Your task to perform on an android device: turn notification dots on Image 0: 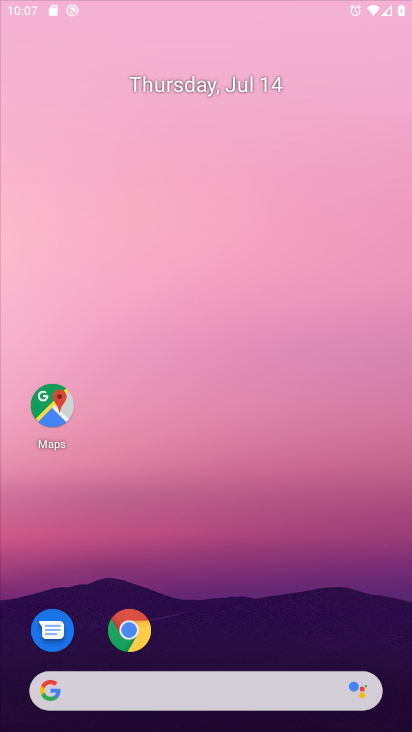
Step 0: click (298, 167)
Your task to perform on an android device: turn notification dots on Image 1: 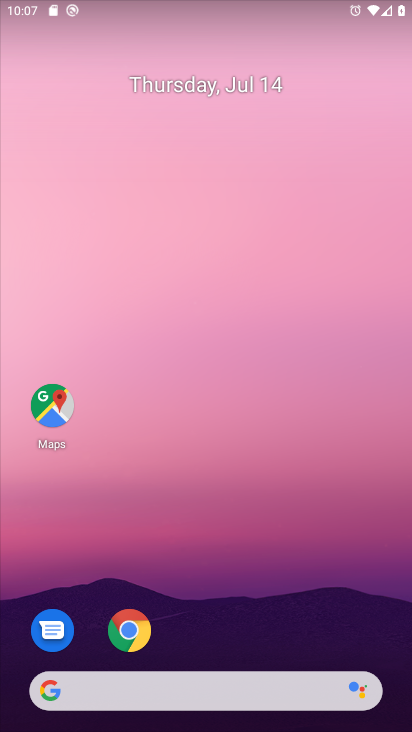
Step 1: press home button
Your task to perform on an android device: turn notification dots on Image 2: 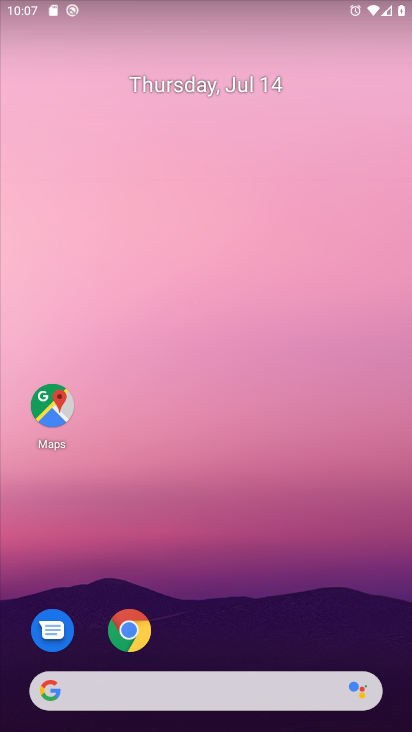
Step 2: drag from (185, 651) to (251, 96)
Your task to perform on an android device: turn notification dots on Image 3: 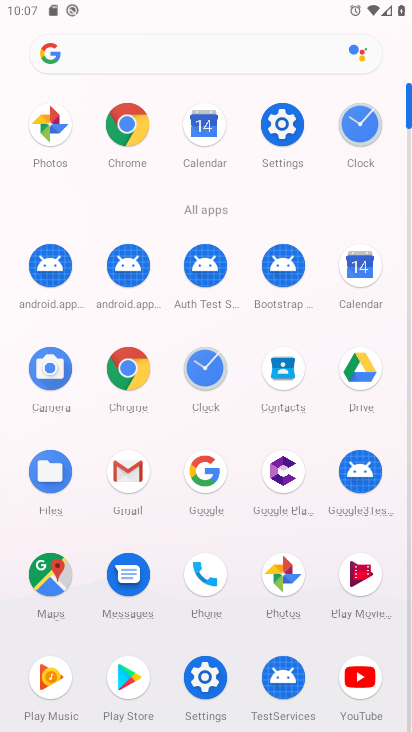
Step 3: click (280, 89)
Your task to perform on an android device: turn notification dots on Image 4: 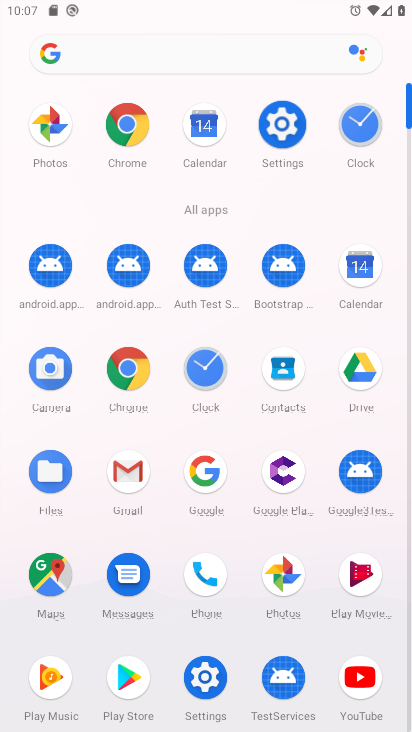
Step 4: click (276, 113)
Your task to perform on an android device: turn notification dots on Image 5: 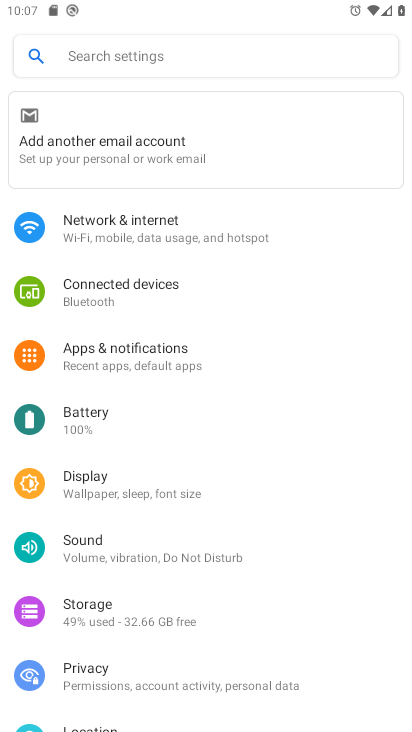
Step 5: drag from (135, 400) to (318, 18)
Your task to perform on an android device: turn notification dots on Image 6: 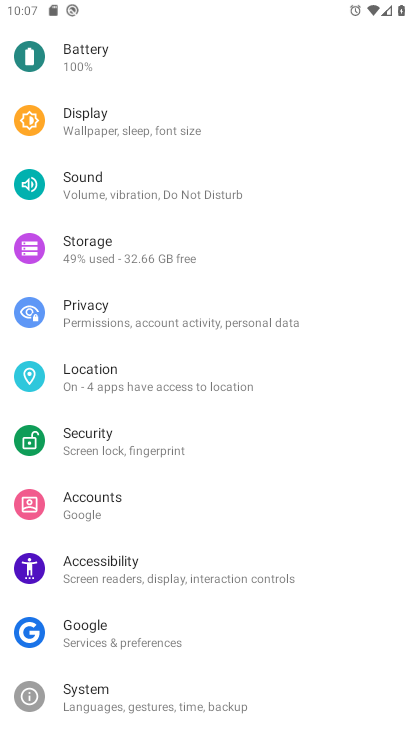
Step 6: drag from (179, 182) to (220, 542)
Your task to perform on an android device: turn notification dots on Image 7: 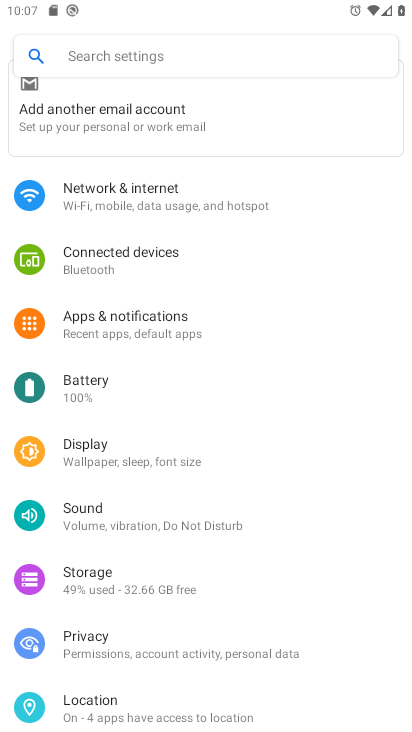
Step 7: click (148, 333)
Your task to perform on an android device: turn notification dots on Image 8: 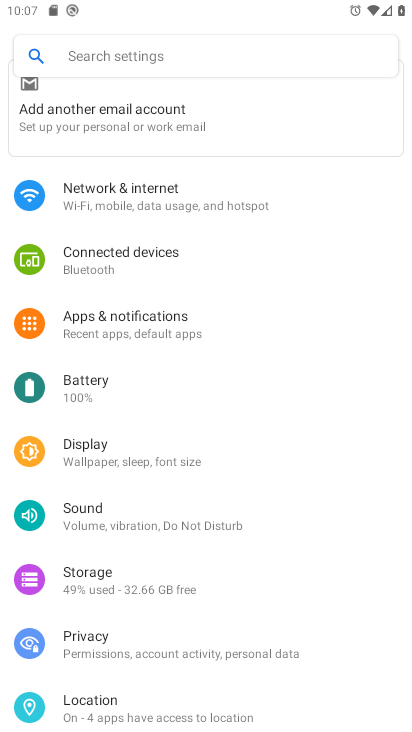
Step 8: click (152, 336)
Your task to perform on an android device: turn notification dots on Image 9: 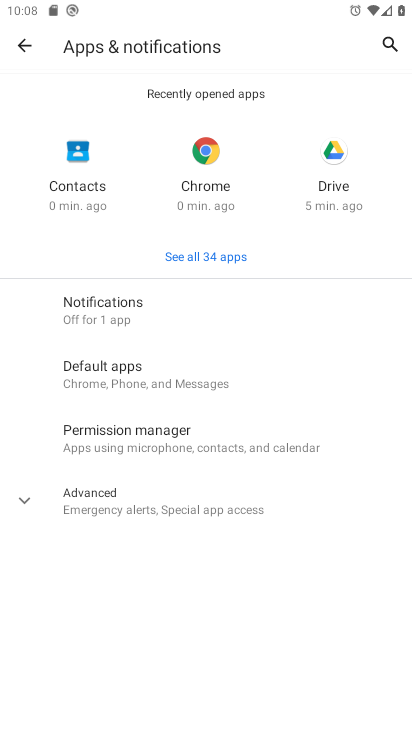
Step 9: click (152, 320)
Your task to perform on an android device: turn notification dots on Image 10: 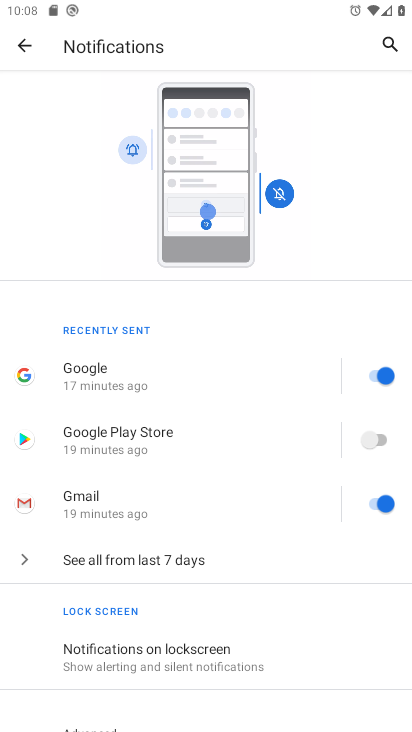
Step 10: drag from (158, 628) to (269, 129)
Your task to perform on an android device: turn notification dots on Image 11: 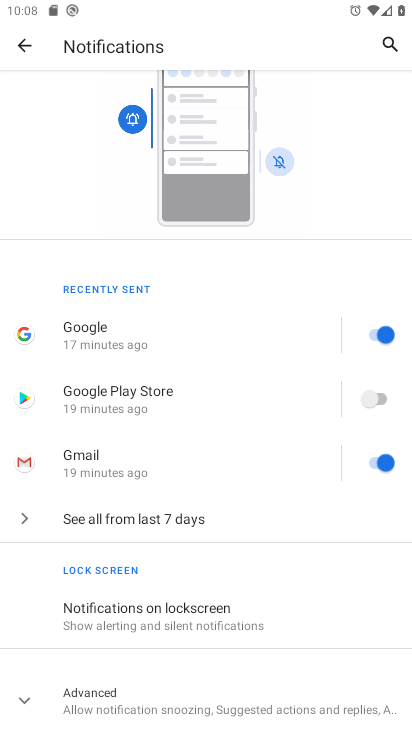
Step 11: click (178, 693)
Your task to perform on an android device: turn notification dots on Image 12: 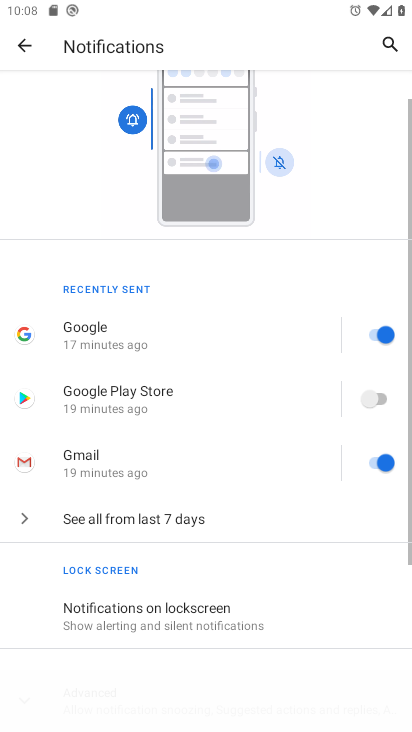
Step 12: task complete